Your task to perform on an android device: change the clock display to analog Image 0: 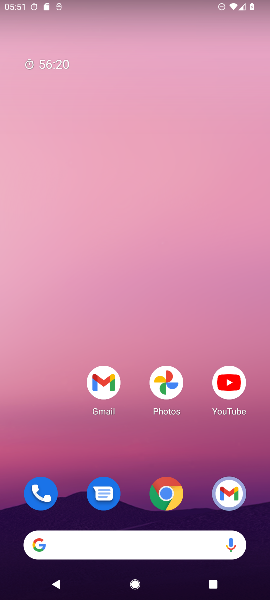
Step 0: press home button
Your task to perform on an android device: change the clock display to analog Image 1: 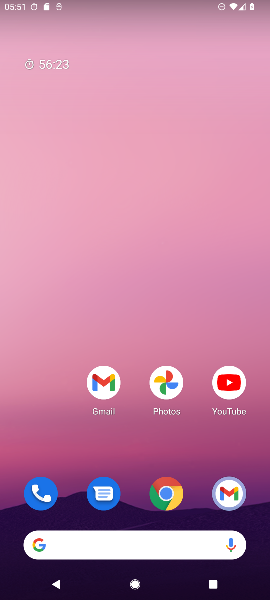
Step 1: drag from (56, 429) to (54, 105)
Your task to perform on an android device: change the clock display to analog Image 2: 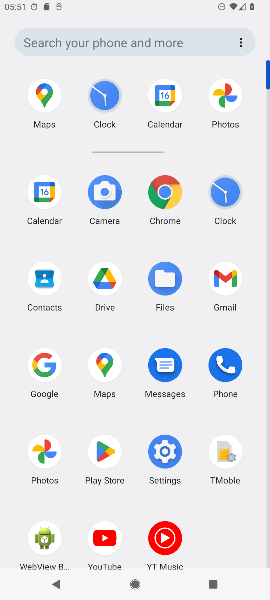
Step 2: click (228, 188)
Your task to perform on an android device: change the clock display to analog Image 3: 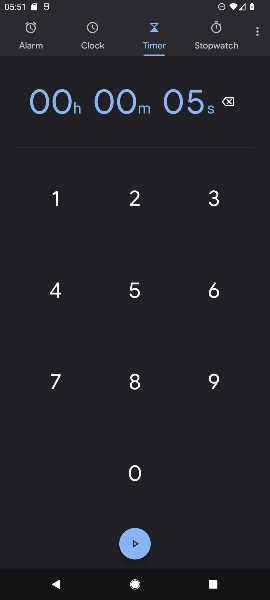
Step 3: click (258, 30)
Your task to perform on an android device: change the clock display to analog Image 4: 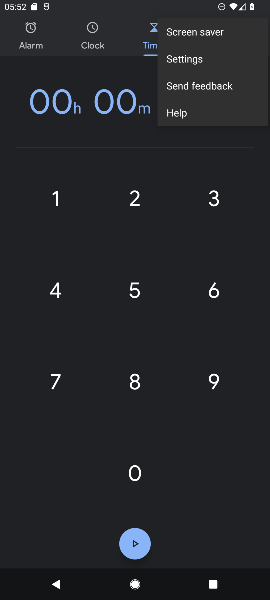
Step 4: click (200, 62)
Your task to perform on an android device: change the clock display to analog Image 5: 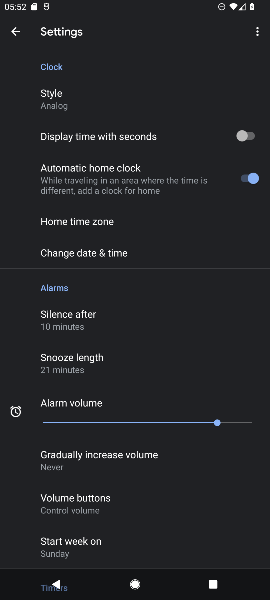
Step 5: drag from (162, 308) to (181, 165)
Your task to perform on an android device: change the clock display to analog Image 6: 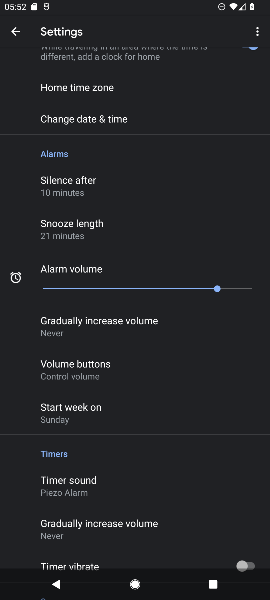
Step 6: drag from (170, 392) to (194, 258)
Your task to perform on an android device: change the clock display to analog Image 7: 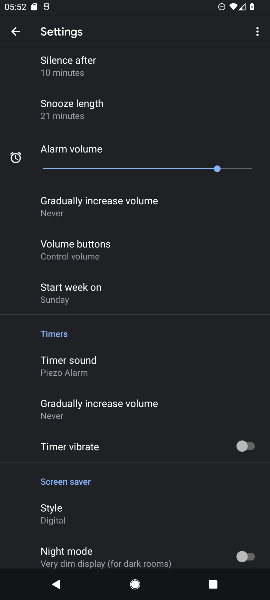
Step 7: drag from (205, 98) to (195, 305)
Your task to perform on an android device: change the clock display to analog Image 8: 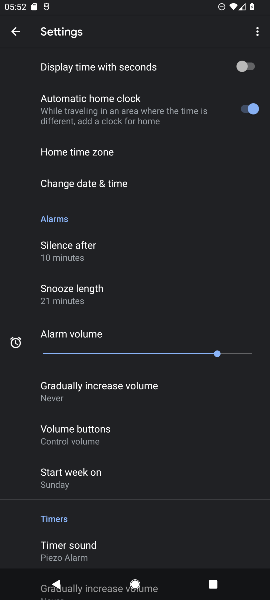
Step 8: drag from (199, 144) to (193, 305)
Your task to perform on an android device: change the clock display to analog Image 9: 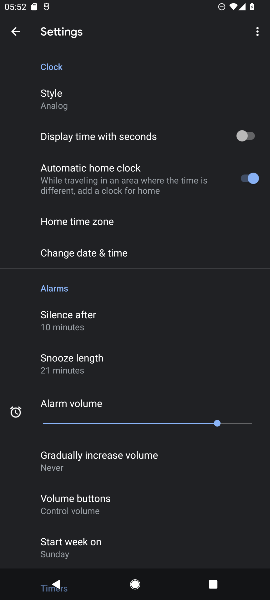
Step 9: drag from (194, 130) to (201, 299)
Your task to perform on an android device: change the clock display to analog Image 10: 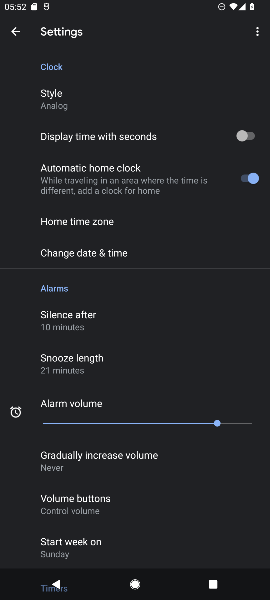
Step 10: drag from (198, 140) to (197, 310)
Your task to perform on an android device: change the clock display to analog Image 11: 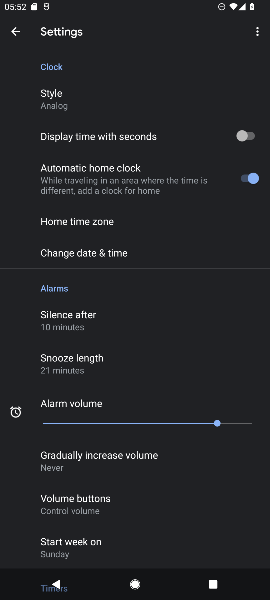
Step 11: click (73, 108)
Your task to perform on an android device: change the clock display to analog Image 12: 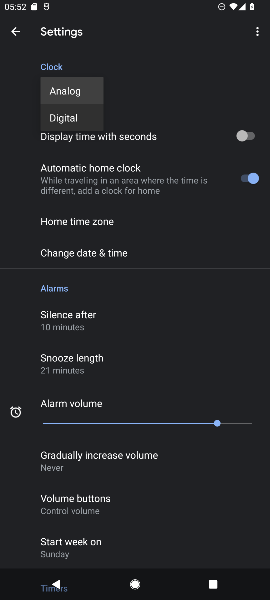
Step 12: click (73, 91)
Your task to perform on an android device: change the clock display to analog Image 13: 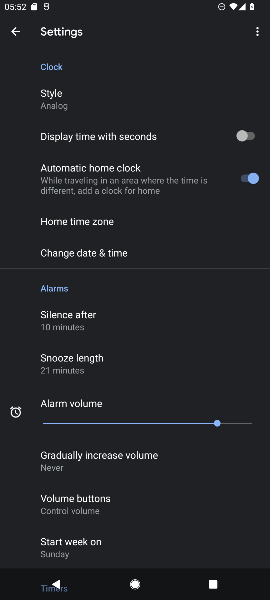
Step 13: task complete